Your task to perform on an android device: uninstall "Gmail" Image 0: 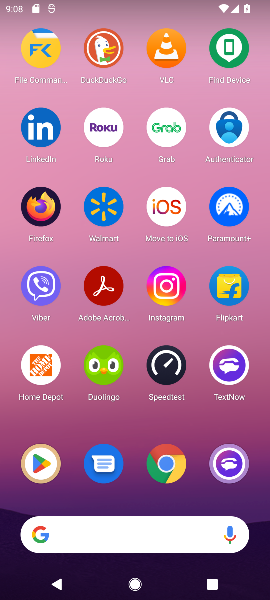
Step 0: drag from (128, 490) to (129, 131)
Your task to perform on an android device: uninstall "Gmail" Image 1: 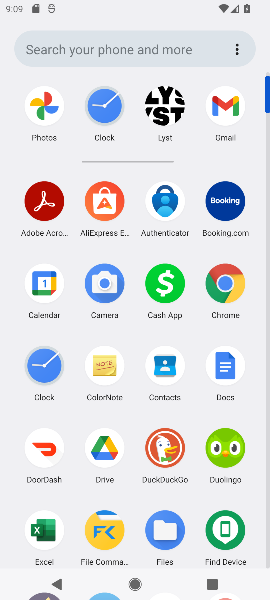
Step 1: task complete